Your task to perform on an android device: Go to Wikipedia Image 0: 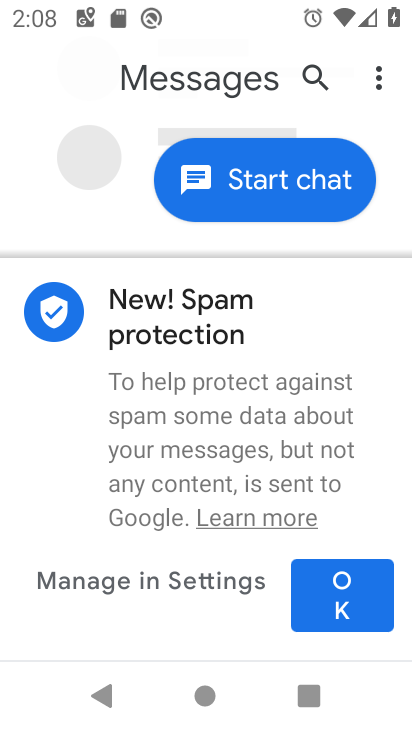
Step 0: press home button
Your task to perform on an android device: Go to Wikipedia Image 1: 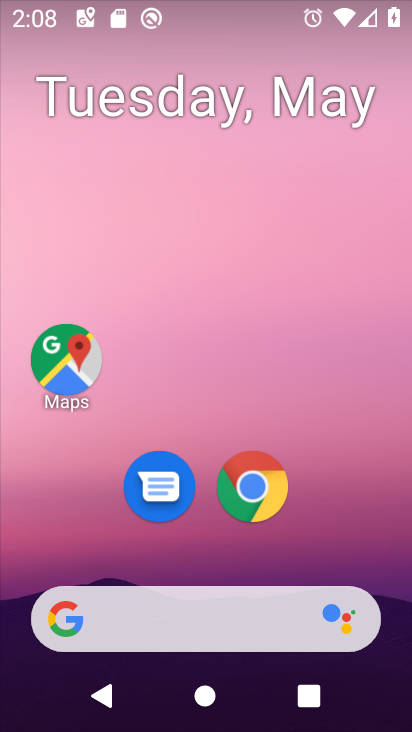
Step 1: drag from (13, 646) to (242, 108)
Your task to perform on an android device: Go to Wikipedia Image 2: 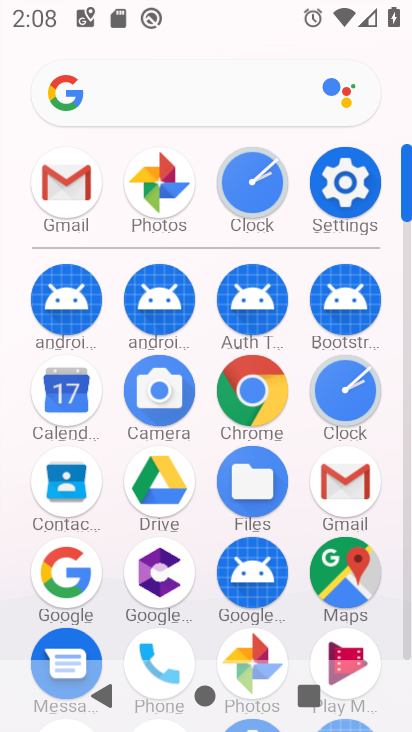
Step 2: click (244, 401)
Your task to perform on an android device: Go to Wikipedia Image 3: 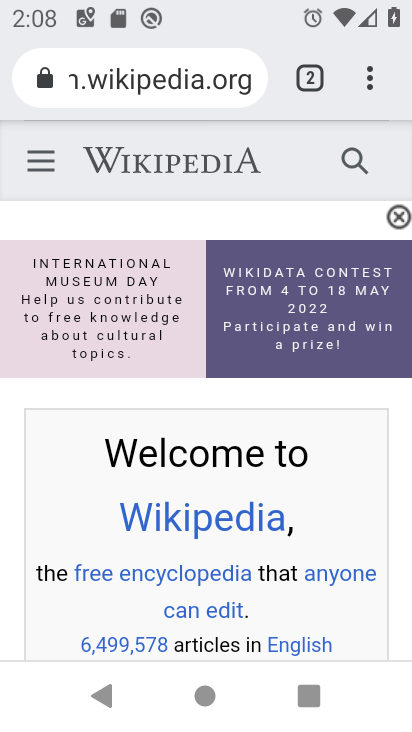
Step 3: task complete